Your task to perform on an android device: open app "Pinterest" Image 0: 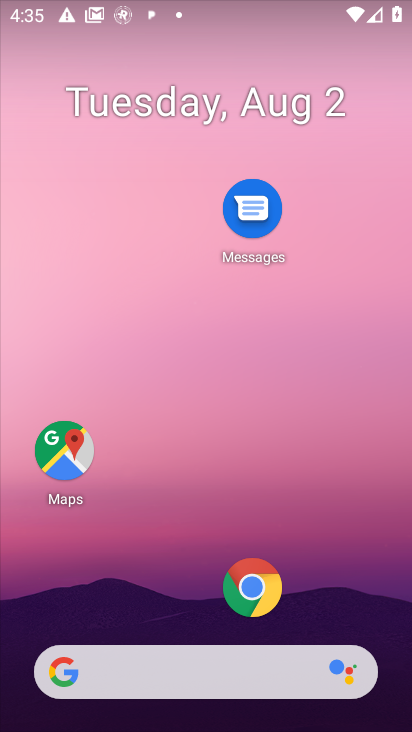
Step 0: drag from (179, 620) to (179, 137)
Your task to perform on an android device: open app "Pinterest" Image 1: 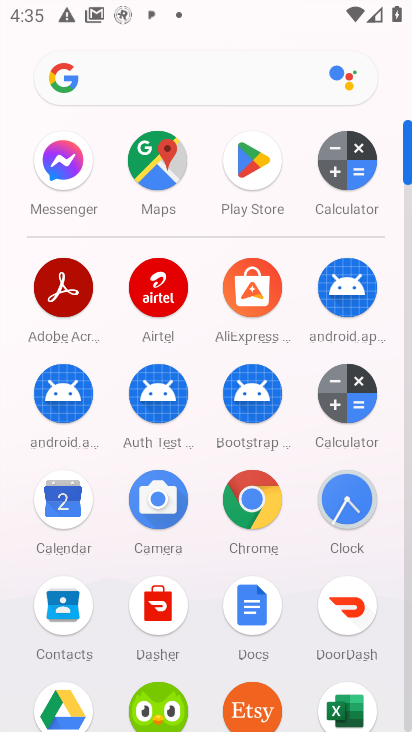
Step 1: click (256, 160)
Your task to perform on an android device: open app "Pinterest" Image 2: 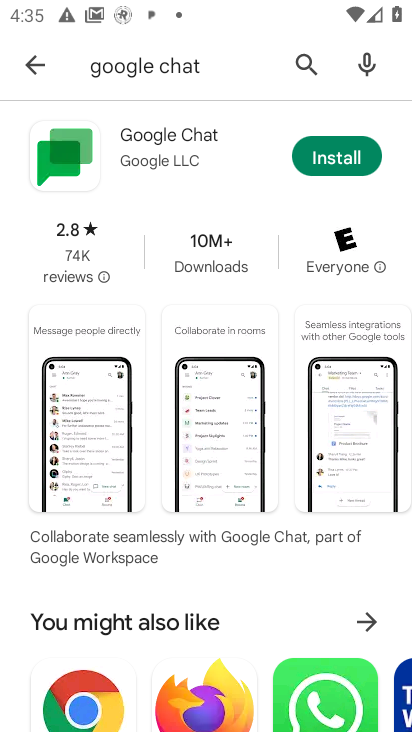
Step 2: click (313, 55)
Your task to perform on an android device: open app "Pinterest" Image 3: 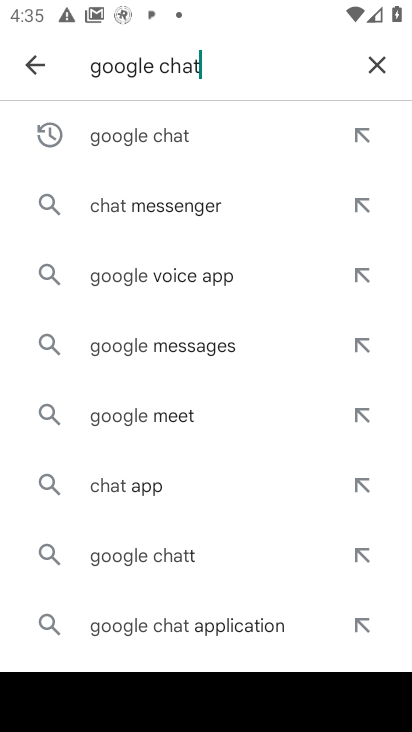
Step 3: click (367, 71)
Your task to perform on an android device: open app "Pinterest" Image 4: 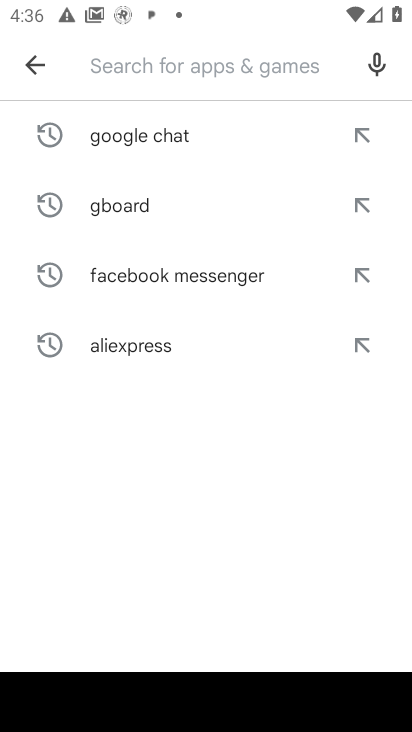
Step 4: type "Pinterest"
Your task to perform on an android device: open app "Pinterest" Image 5: 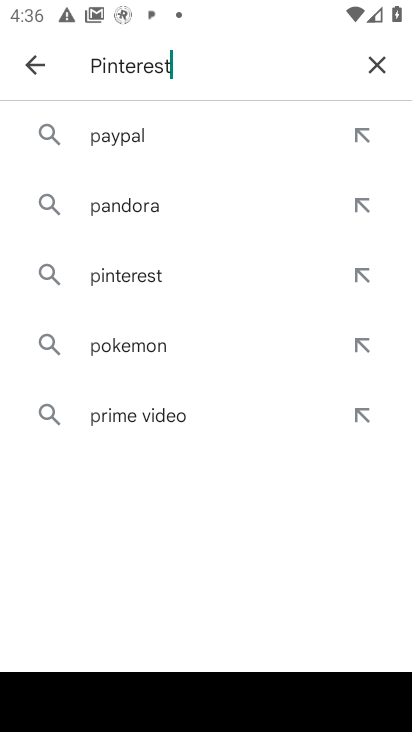
Step 5: type ""
Your task to perform on an android device: open app "Pinterest" Image 6: 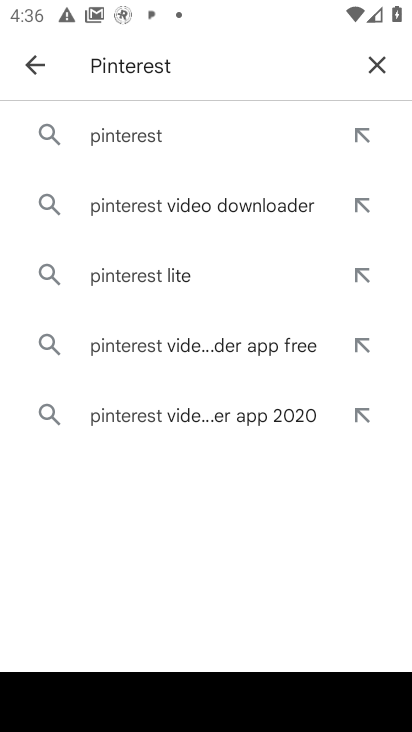
Step 6: click (162, 145)
Your task to perform on an android device: open app "Pinterest" Image 7: 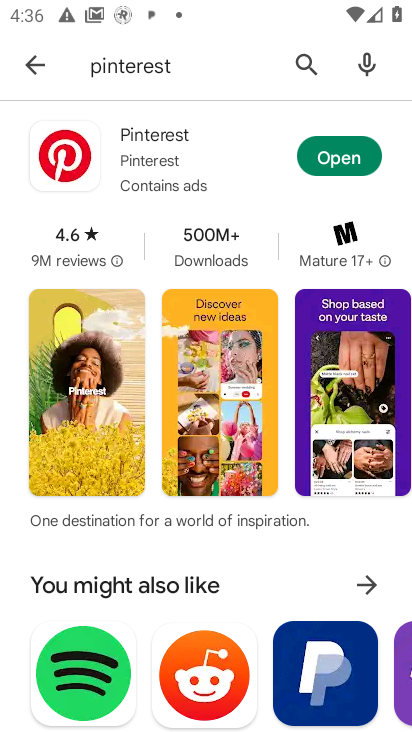
Step 7: click (322, 166)
Your task to perform on an android device: open app "Pinterest" Image 8: 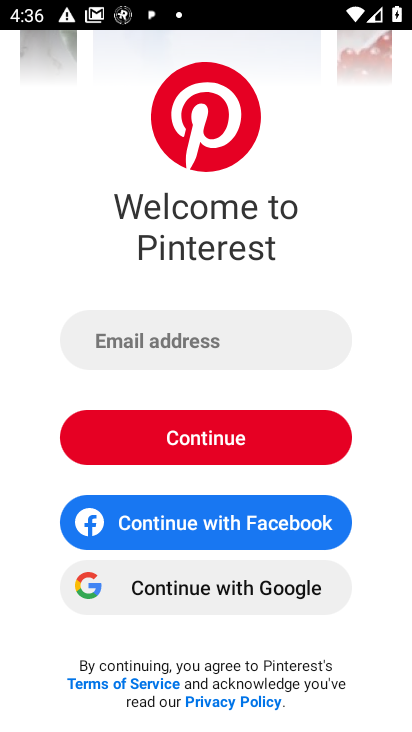
Step 8: task complete